Your task to perform on an android device: all mails in gmail Image 0: 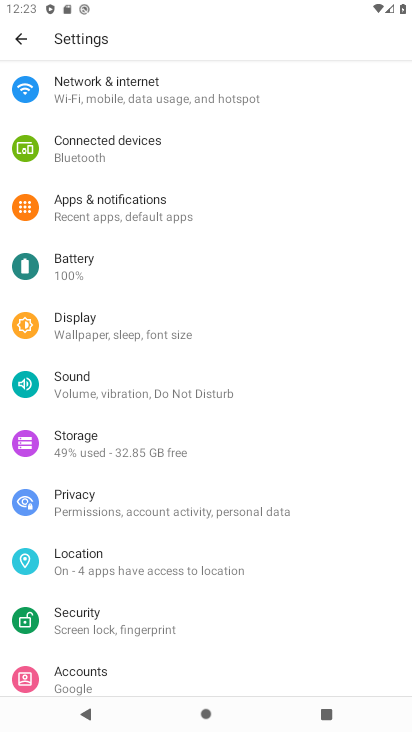
Step 0: press home button
Your task to perform on an android device: all mails in gmail Image 1: 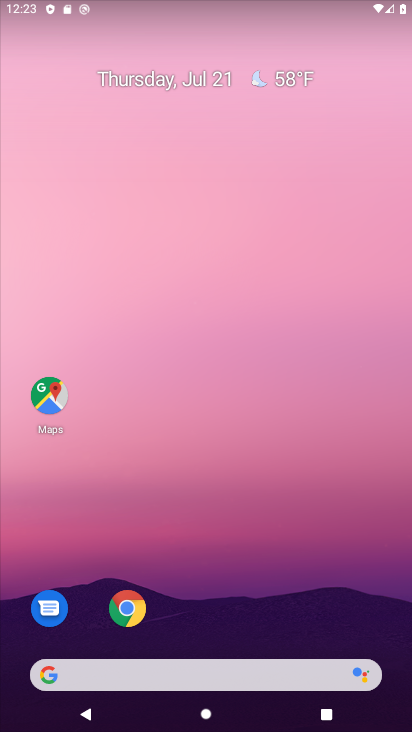
Step 1: drag from (196, 635) to (251, 0)
Your task to perform on an android device: all mails in gmail Image 2: 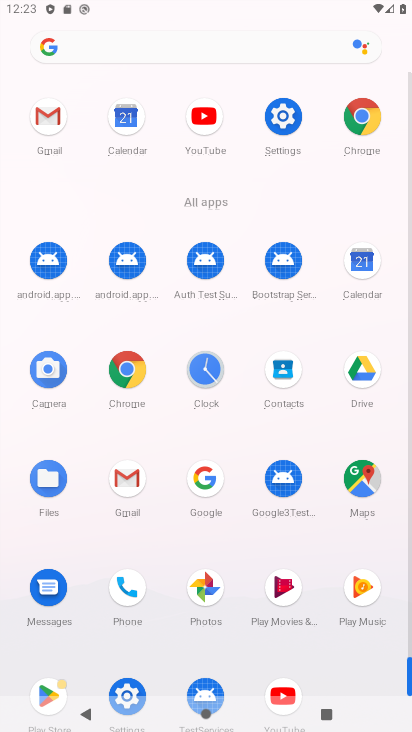
Step 2: click (127, 472)
Your task to perform on an android device: all mails in gmail Image 3: 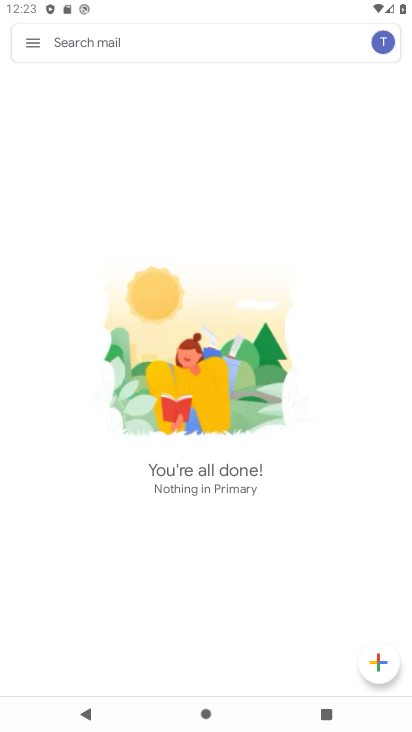
Step 3: click (29, 37)
Your task to perform on an android device: all mails in gmail Image 4: 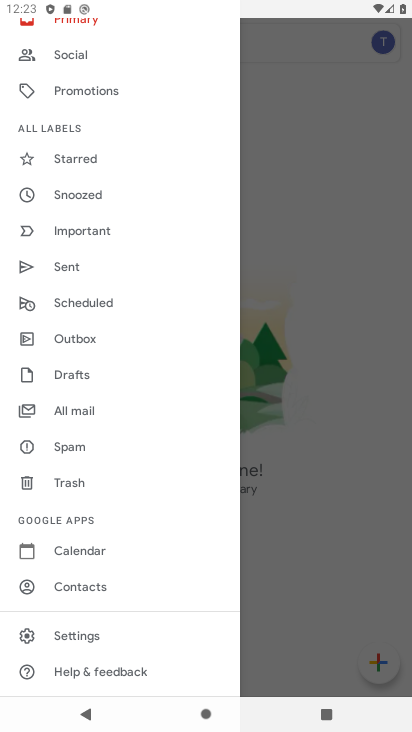
Step 4: click (97, 408)
Your task to perform on an android device: all mails in gmail Image 5: 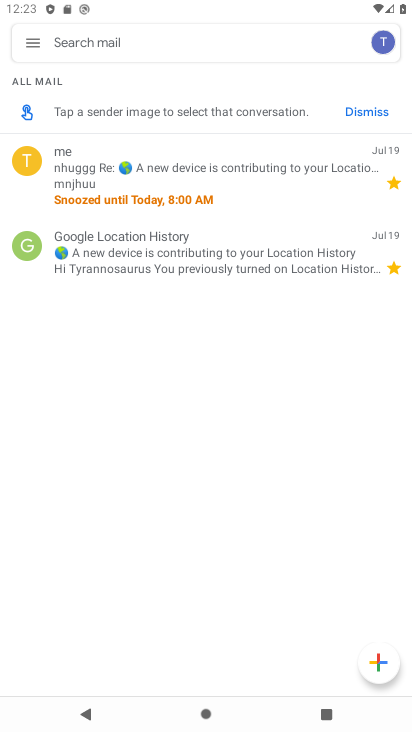
Step 5: task complete